Your task to perform on an android device: install app "Pandora - Music & Podcasts" Image 0: 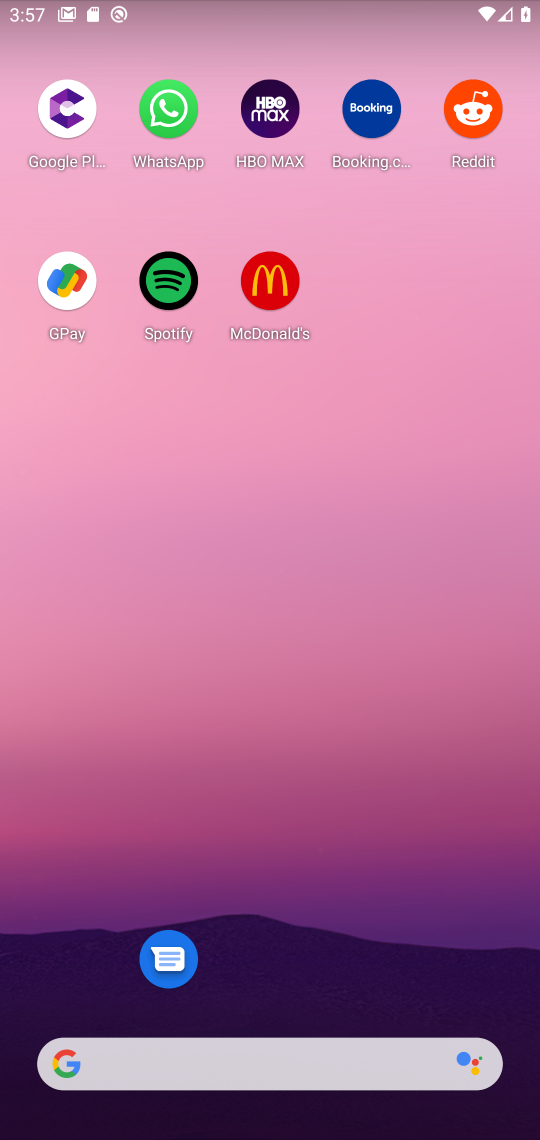
Step 0: drag from (299, 964) to (348, 7)
Your task to perform on an android device: install app "Pandora - Music & Podcasts" Image 1: 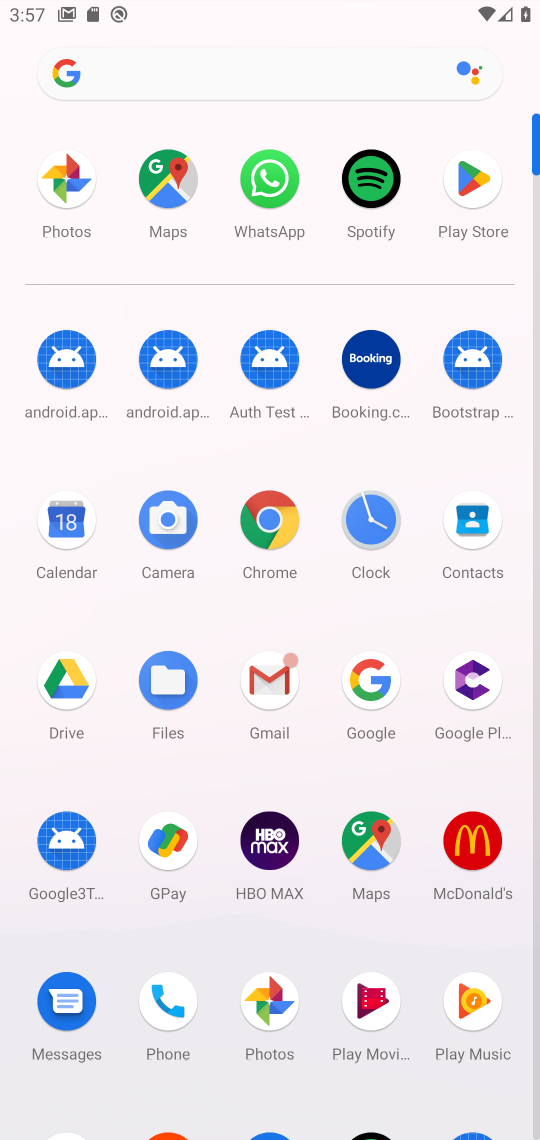
Step 1: click (475, 237)
Your task to perform on an android device: install app "Pandora - Music & Podcasts" Image 2: 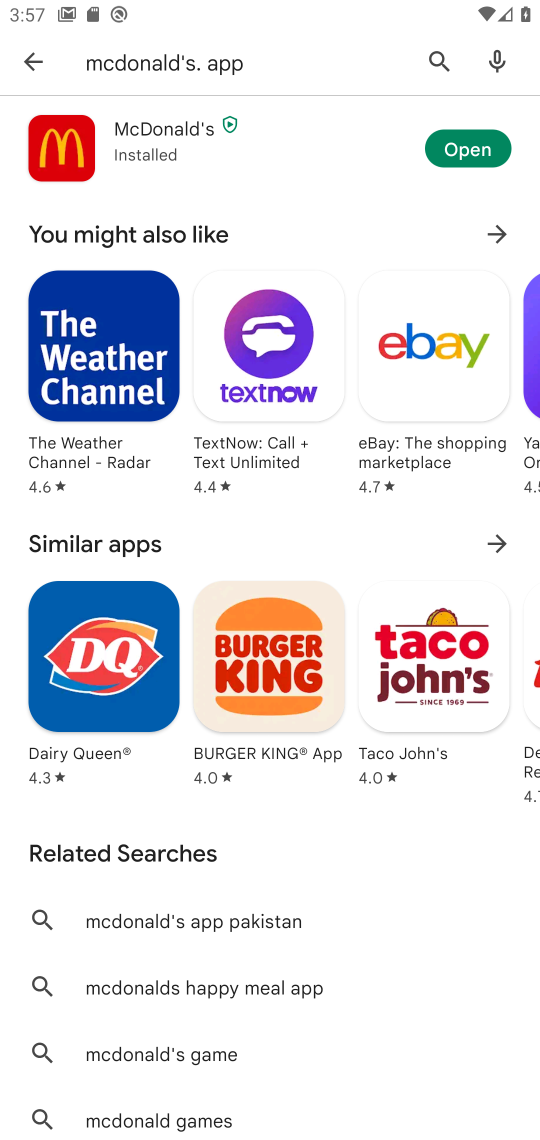
Step 2: click (31, 80)
Your task to perform on an android device: install app "Pandora - Music & Podcasts" Image 3: 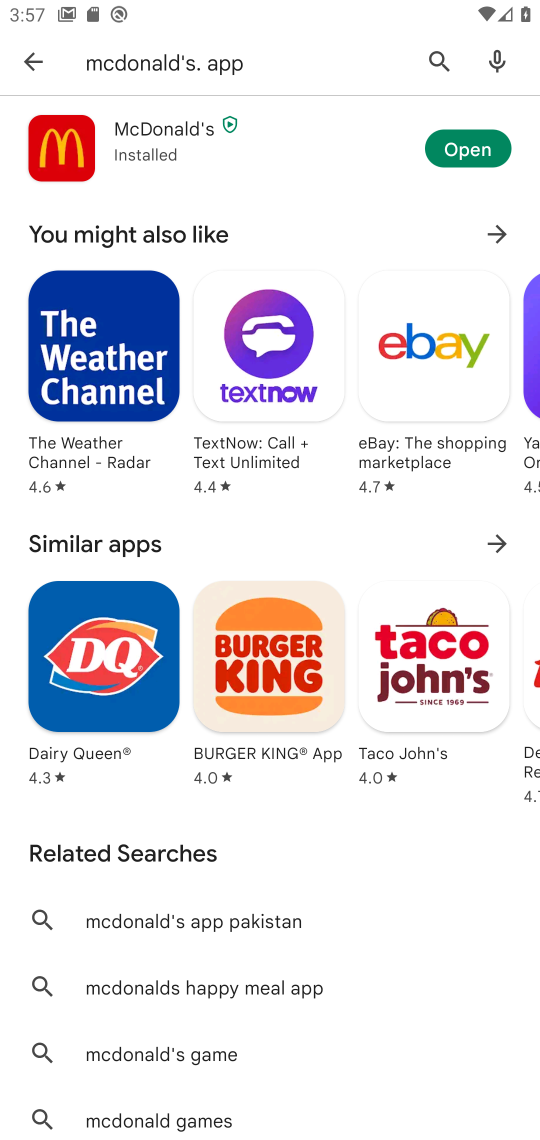
Step 3: click (46, 65)
Your task to perform on an android device: install app "Pandora - Music & Podcasts" Image 4: 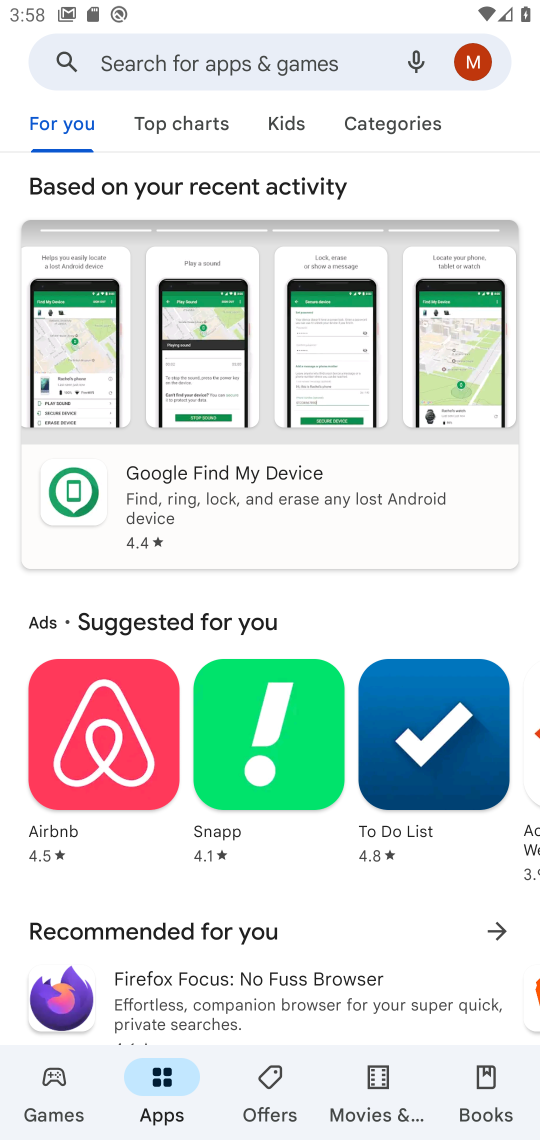
Step 4: click (253, 51)
Your task to perform on an android device: install app "Pandora - Music & Podcasts" Image 5: 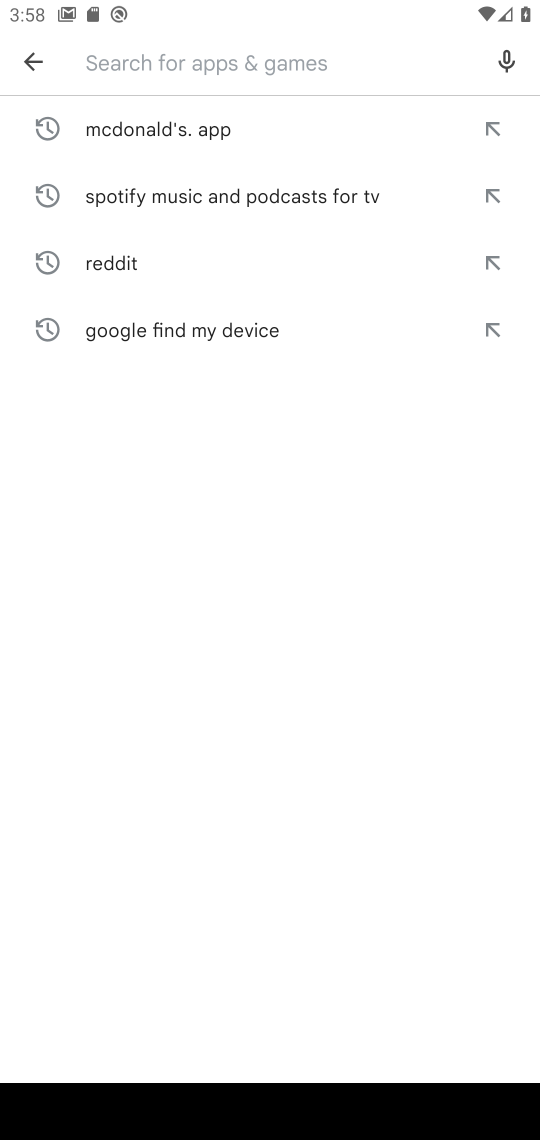
Step 5: type "Pandora - Music & Podcasts"
Your task to perform on an android device: install app "Pandora - Music & Podcasts" Image 6: 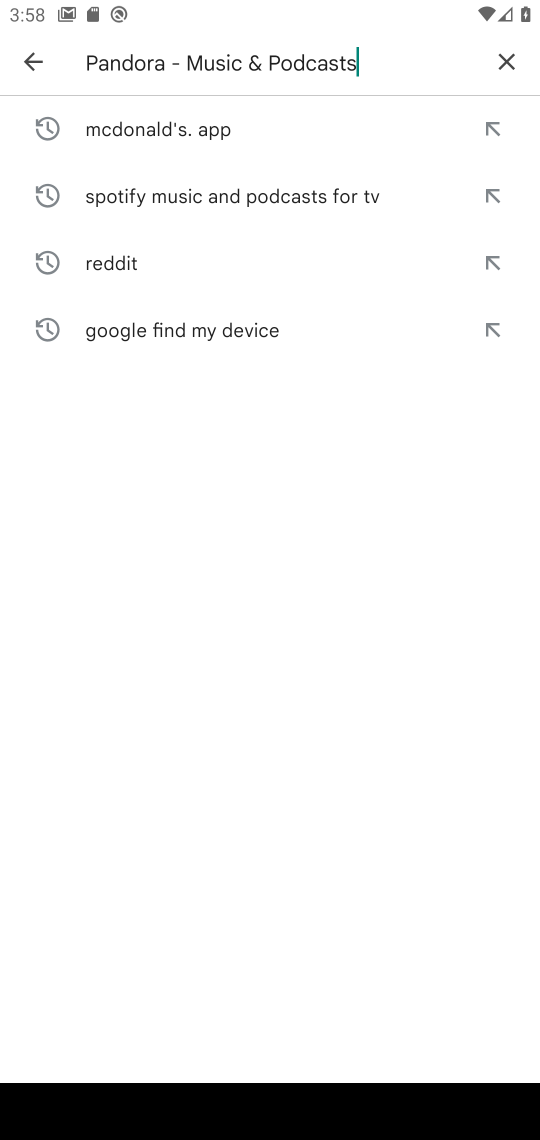
Step 6: type ""
Your task to perform on an android device: install app "Pandora - Music & Podcasts" Image 7: 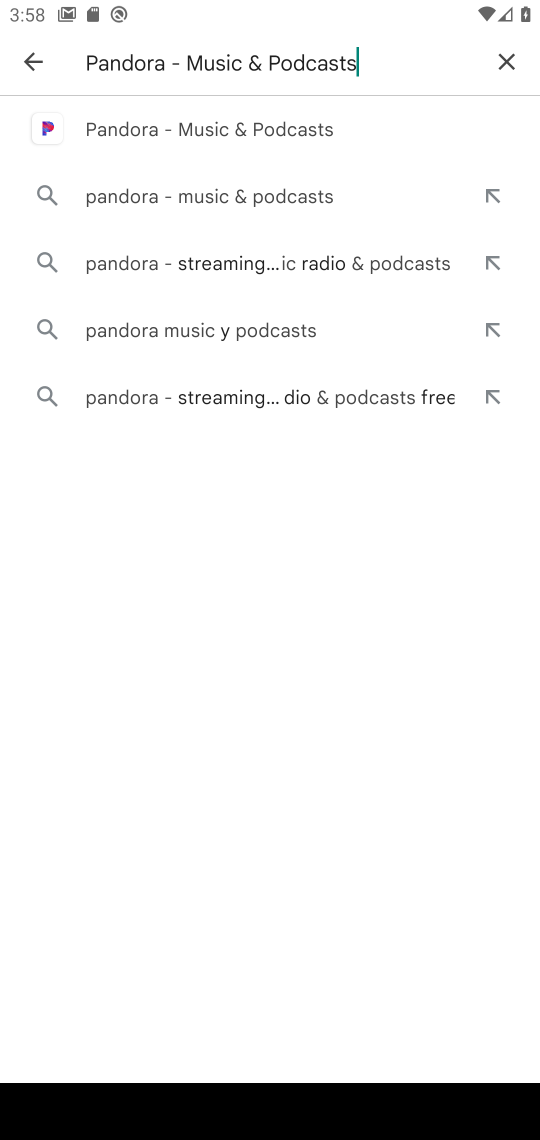
Step 7: click (300, 132)
Your task to perform on an android device: install app "Pandora - Music & Podcasts" Image 8: 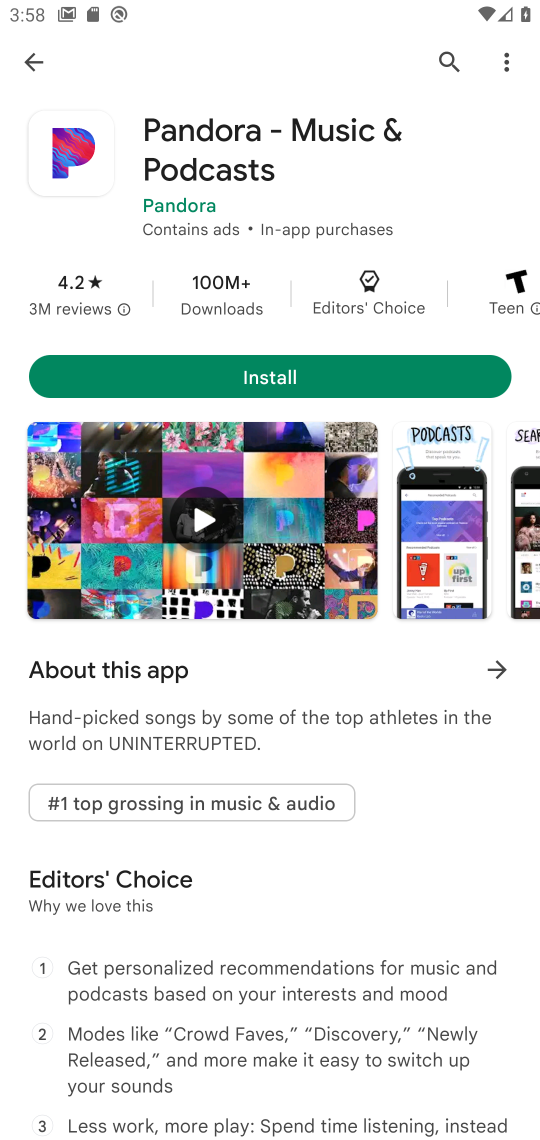
Step 8: click (336, 372)
Your task to perform on an android device: install app "Pandora - Music & Podcasts" Image 9: 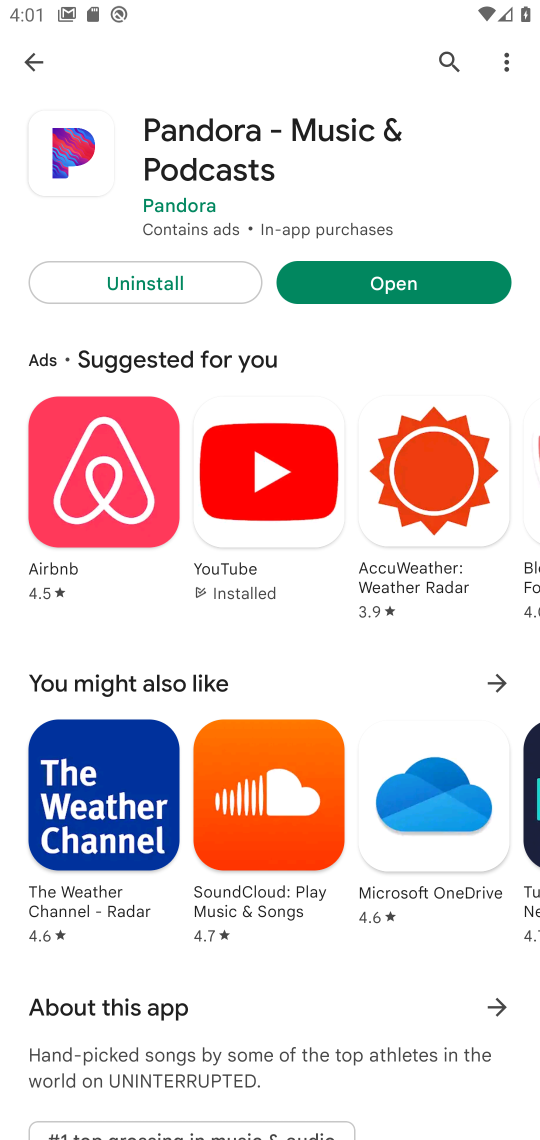
Step 9: task complete